Your task to perform on an android device: Go to battery settings Image 0: 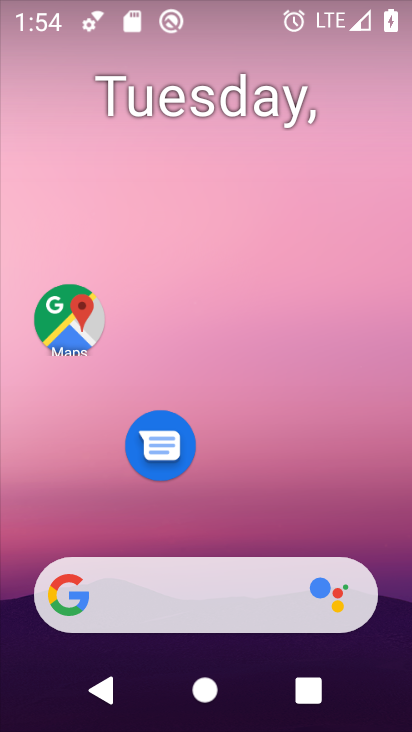
Step 0: drag from (311, 514) to (301, 159)
Your task to perform on an android device: Go to battery settings Image 1: 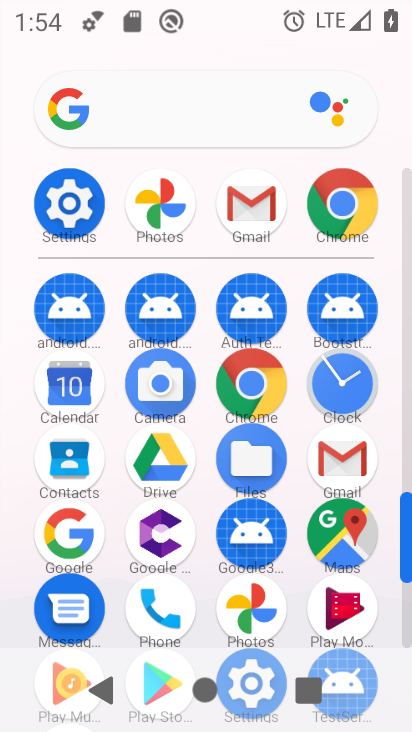
Step 1: click (71, 207)
Your task to perform on an android device: Go to battery settings Image 2: 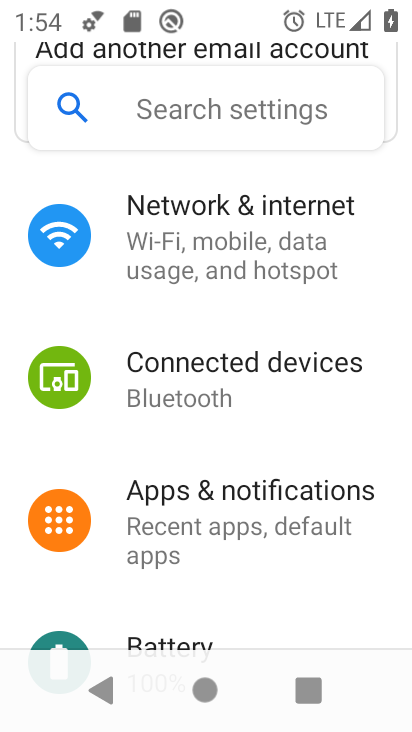
Step 2: drag from (258, 439) to (210, 146)
Your task to perform on an android device: Go to battery settings Image 3: 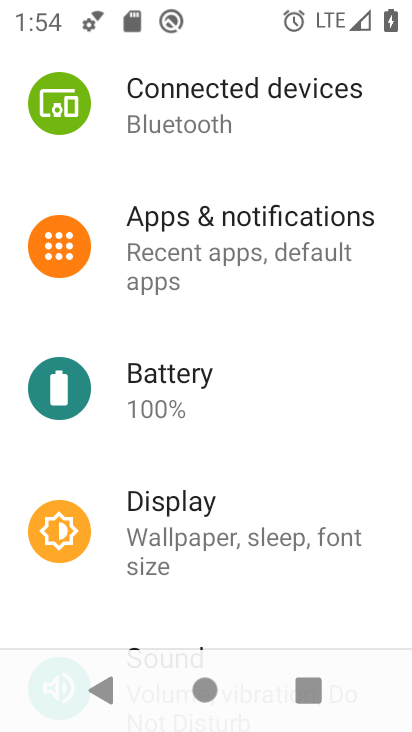
Step 3: click (155, 373)
Your task to perform on an android device: Go to battery settings Image 4: 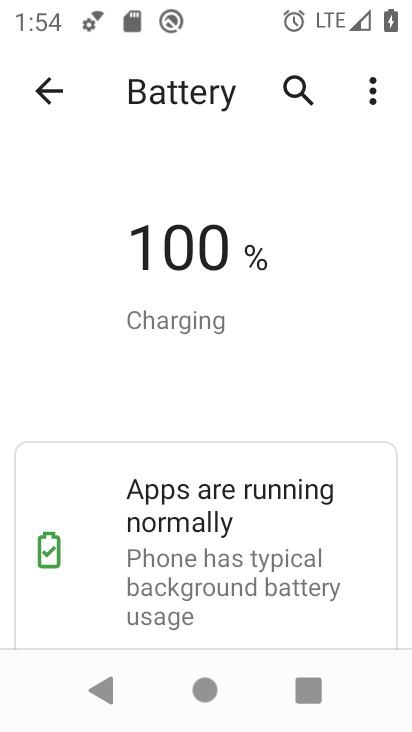
Step 4: task complete